Your task to perform on an android device: Go to Wikipedia Image 0: 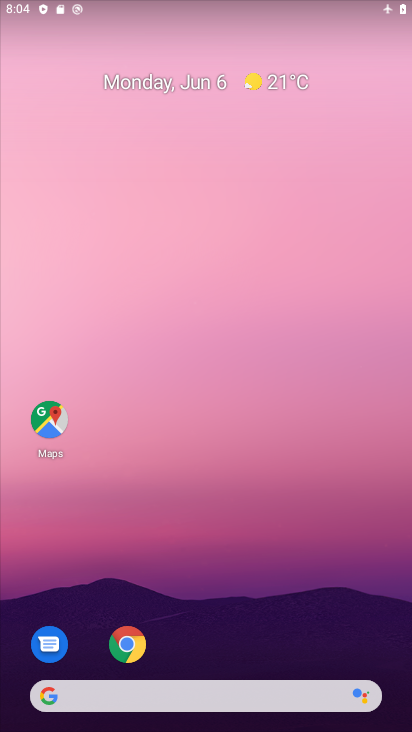
Step 0: click (135, 650)
Your task to perform on an android device: Go to Wikipedia Image 1: 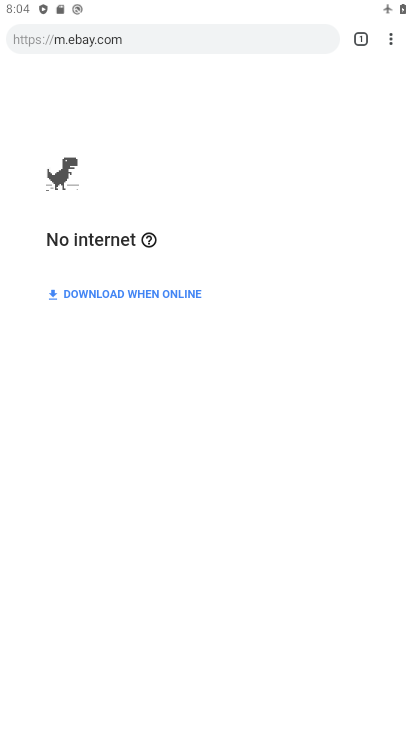
Step 1: task complete